Your task to perform on an android device: Open Youtube and go to the subscriptions tab Image 0: 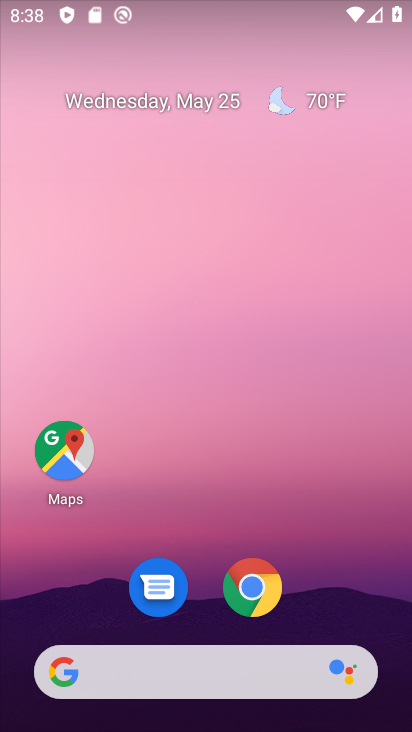
Step 0: drag from (212, 606) to (247, 3)
Your task to perform on an android device: Open Youtube and go to the subscriptions tab Image 1: 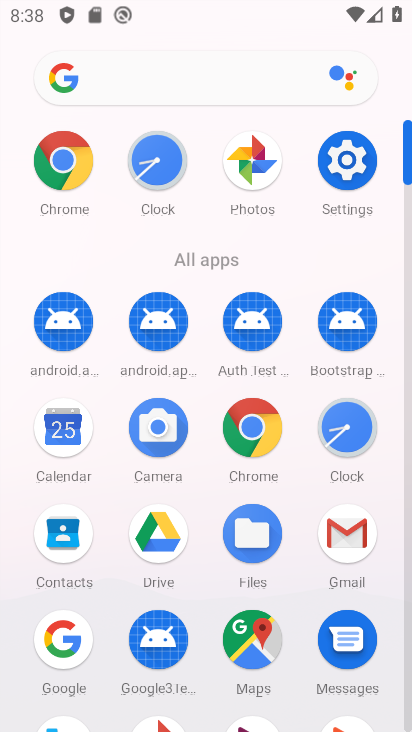
Step 1: drag from (198, 564) to (240, 53)
Your task to perform on an android device: Open Youtube and go to the subscriptions tab Image 2: 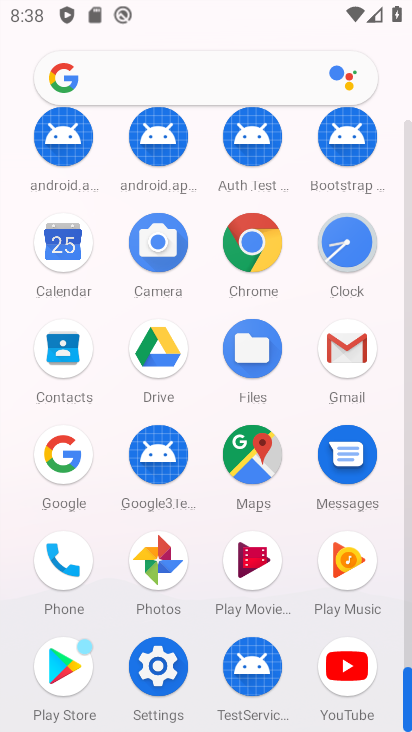
Step 2: click (354, 679)
Your task to perform on an android device: Open Youtube and go to the subscriptions tab Image 3: 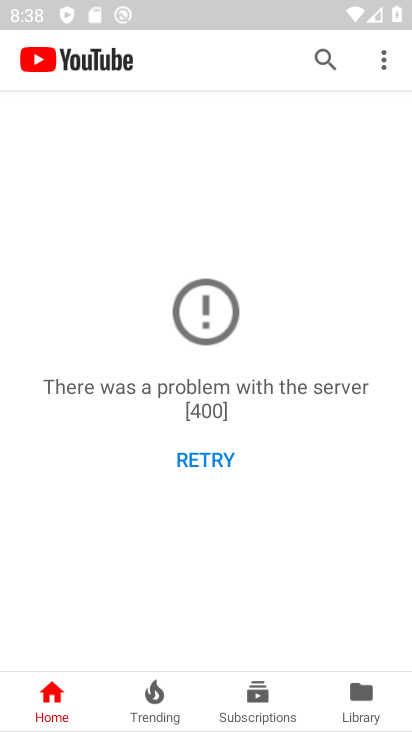
Step 3: click (257, 696)
Your task to perform on an android device: Open Youtube and go to the subscriptions tab Image 4: 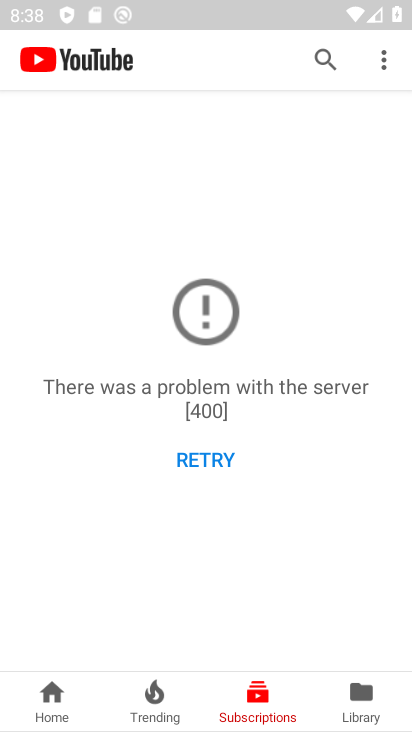
Step 4: task complete